Your task to perform on an android device: Show me recent news Image 0: 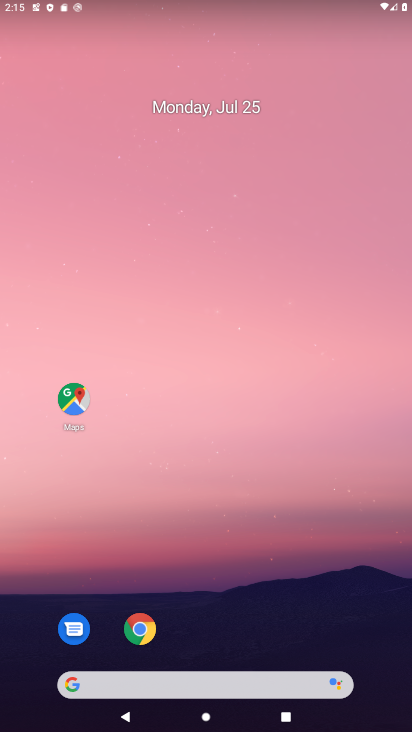
Step 0: drag from (29, 687) to (144, 339)
Your task to perform on an android device: Show me recent news Image 1: 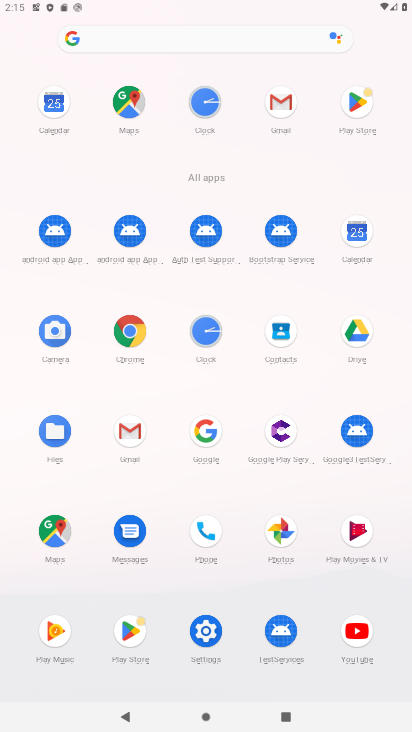
Step 1: click (136, 30)
Your task to perform on an android device: Show me recent news Image 2: 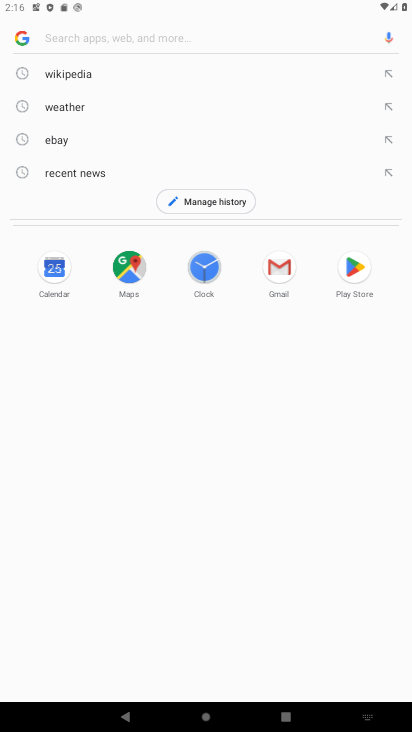
Step 2: type " recent news"
Your task to perform on an android device: Show me recent news Image 3: 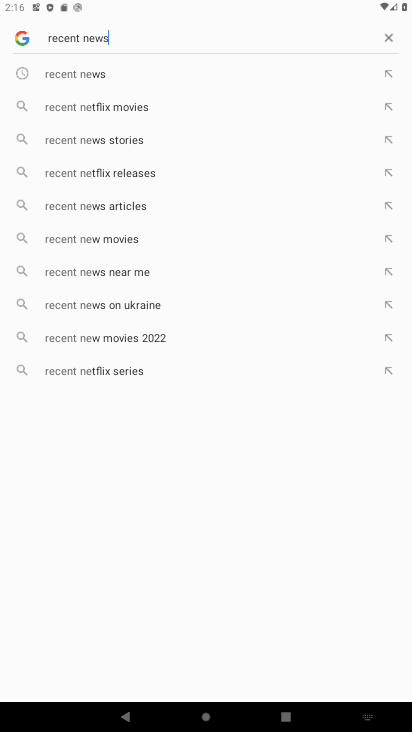
Step 3: type ""
Your task to perform on an android device: Show me recent news Image 4: 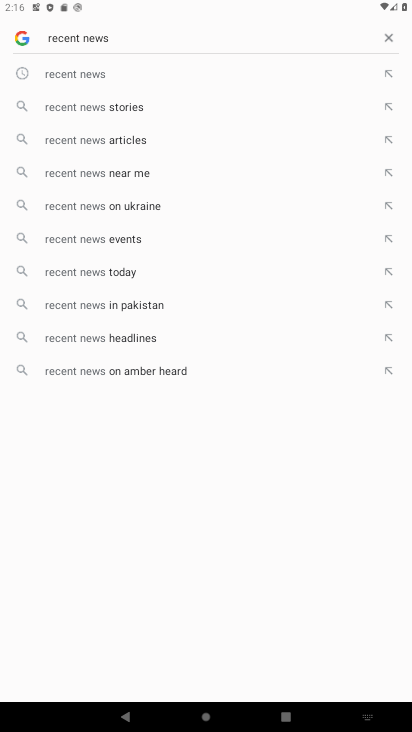
Step 4: click (74, 66)
Your task to perform on an android device: Show me recent news Image 5: 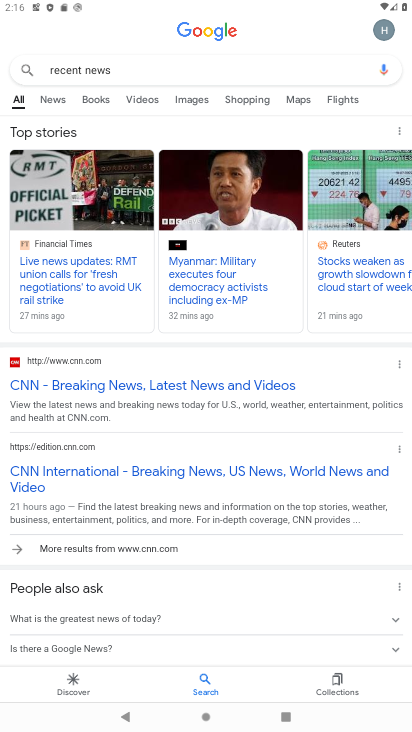
Step 5: task complete